Your task to perform on an android device: change your default location settings in chrome Image 0: 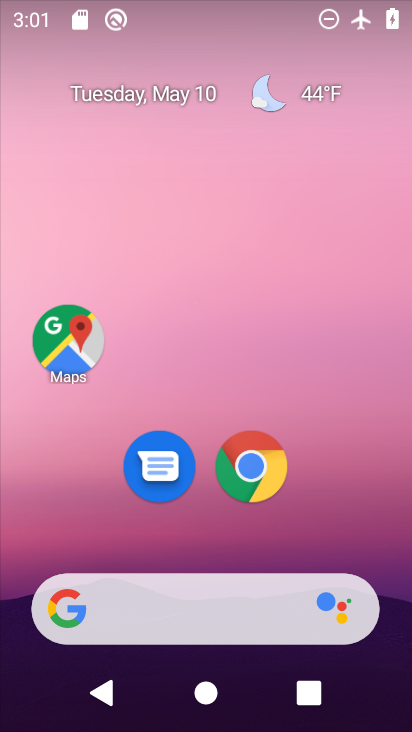
Step 0: click (267, 467)
Your task to perform on an android device: change your default location settings in chrome Image 1: 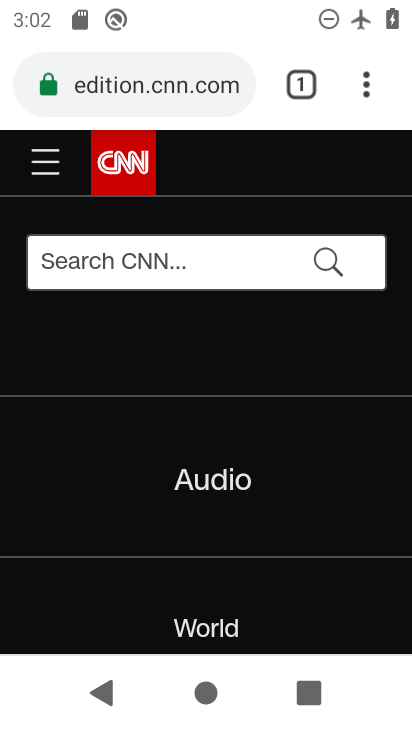
Step 1: click (379, 100)
Your task to perform on an android device: change your default location settings in chrome Image 2: 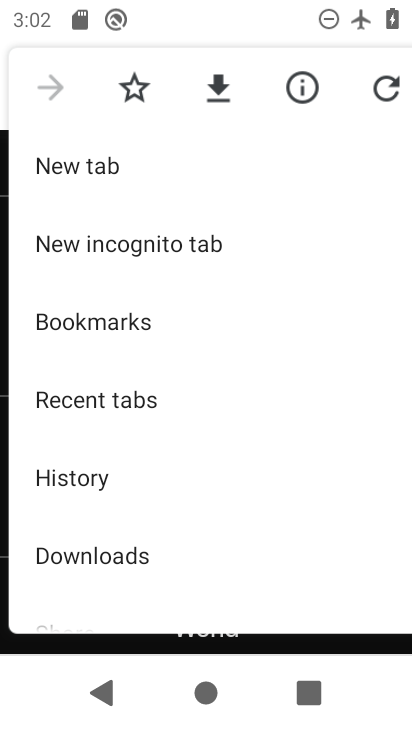
Step 2: drag from (144, 540) to (164, 234)
Your task to perform on an android device: change your default location settings in chrome Image 3: 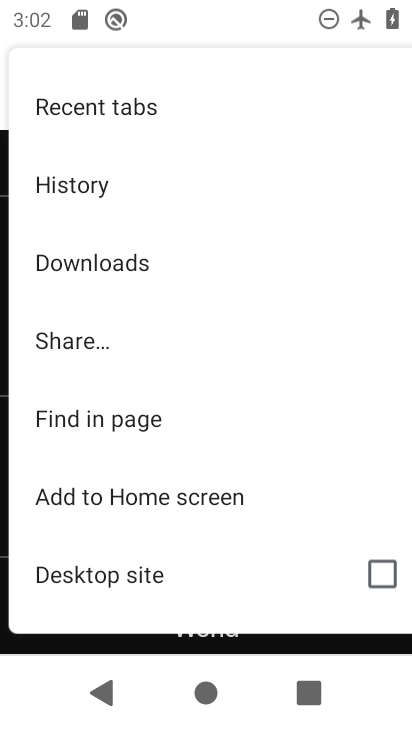
Step 3: drag from (109, 536) to (132, 250)
Your task to perform on an android device: change your default location settings in chrome Image 4: 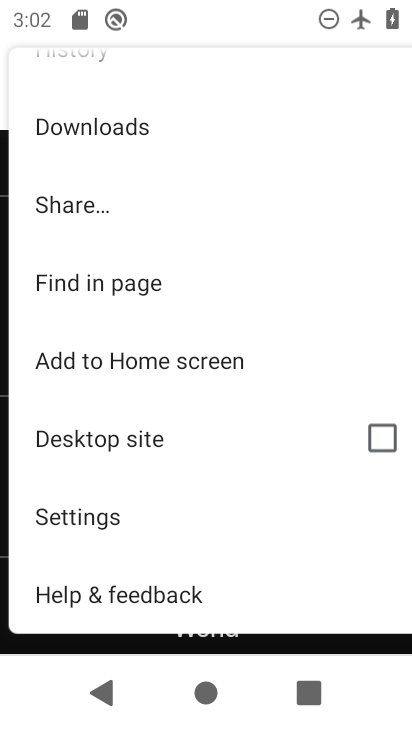
Step 4: drag from (220, 507) to (210, 337)
Your task to perform on an android device: change your default location settings in chrome Image 5: 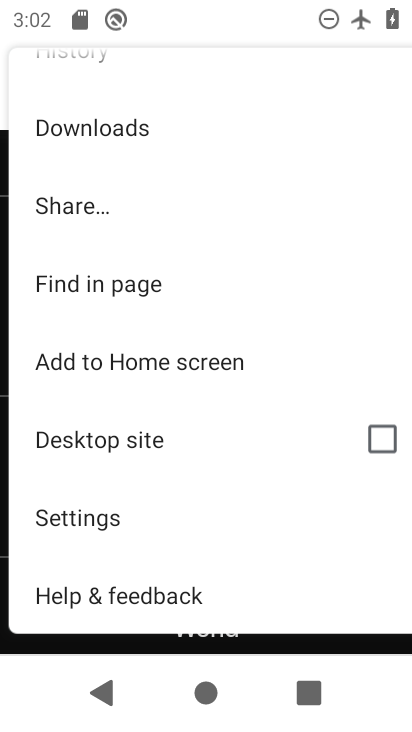
Step 5: click (115, 513)
Your task to perform on an android device: change your default location settings in chrome Image 6: 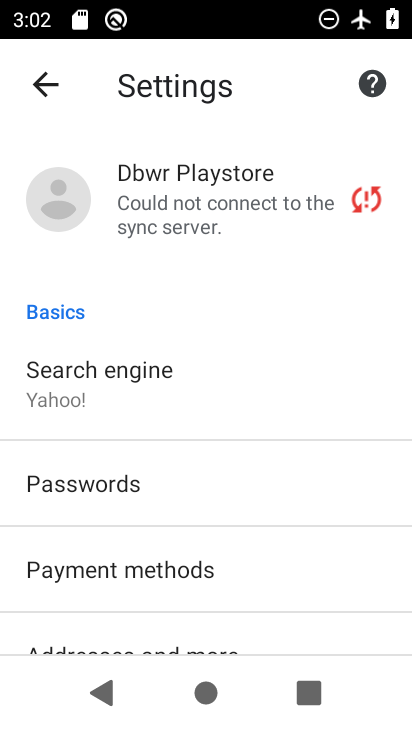
Step 6: drag from (175, 600) to (229, 222)
Your task to perform on an android device: change your default location settings in chrome Image 7: 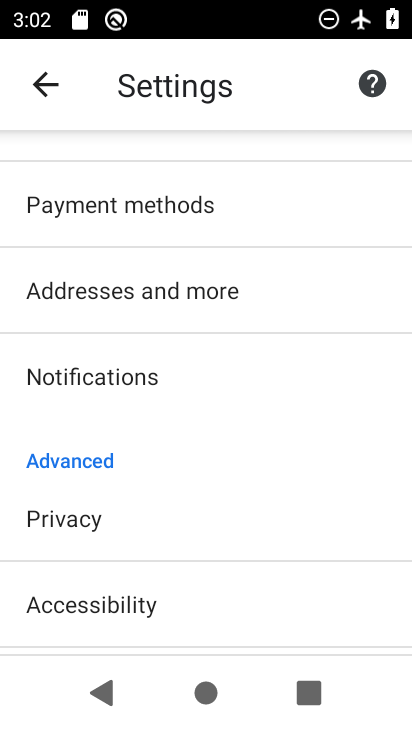
Step 7: drag from (176, 564) to (245, 163)
Your task to perform on an android device: change your default location settings in chrome Image 8: 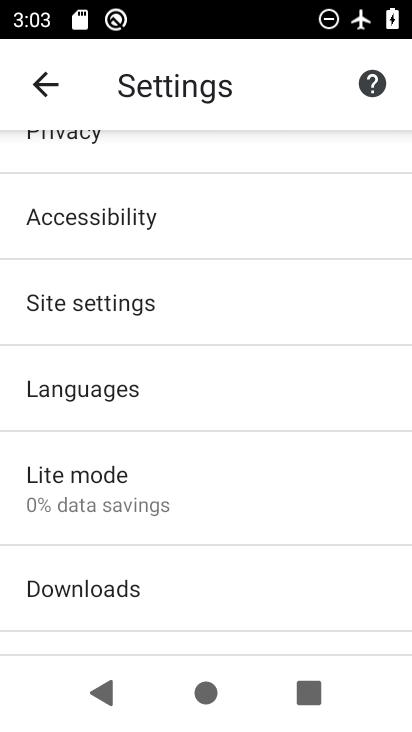
Step 8: click (168, 287)
Your task to perform on an android device: change your default location settings in chrome Image 9: 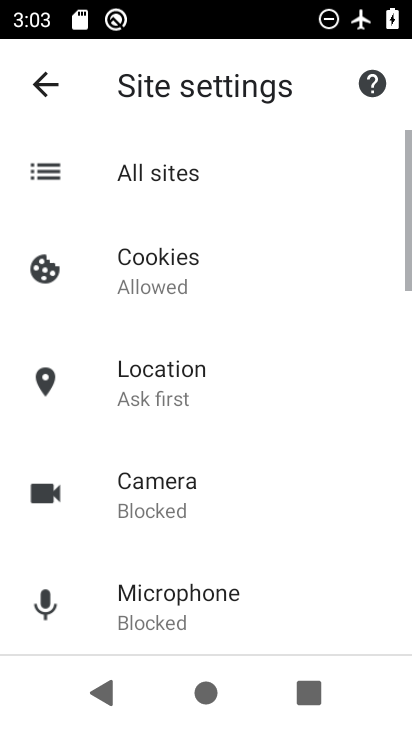
Step 9: drag from (211, 231) to (264, 444)
Your task to perform on an android device: change your default location settings in chrome Image 10: 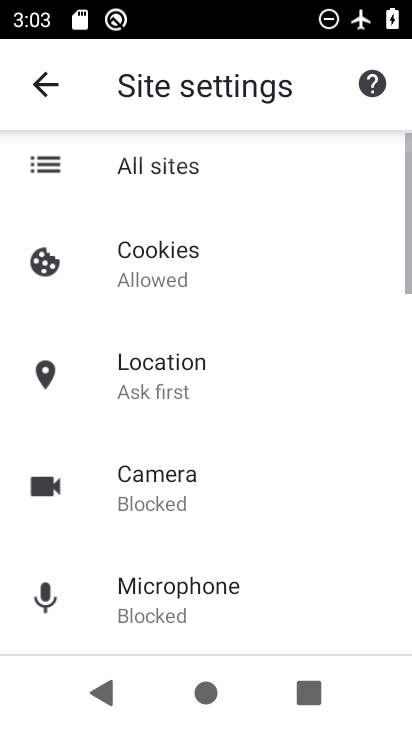
Step 10: click (219, 407)
Your task to perform on an android device: change your default location settings in chrome Image 11: 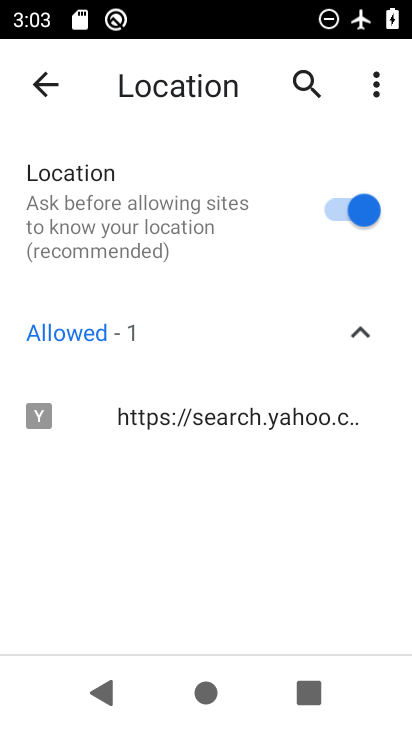
Step 11: click (332, 224)
Your task to perform on an android device: change your default location settings in chrome Image 12: 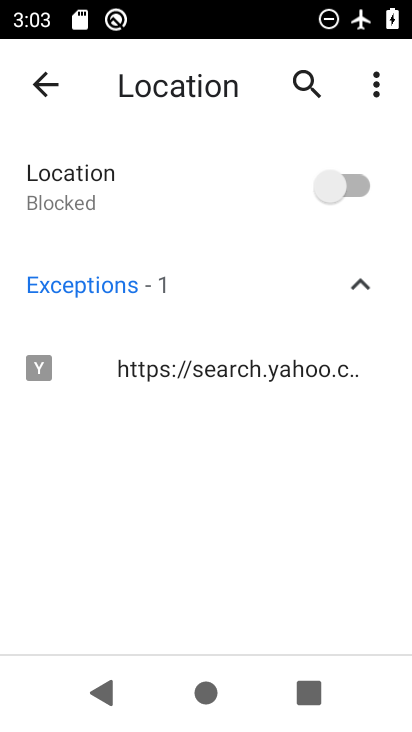
Step 12: task complete